Your task to perform on an android device: choose inbox layout in the gmail app Image 0: 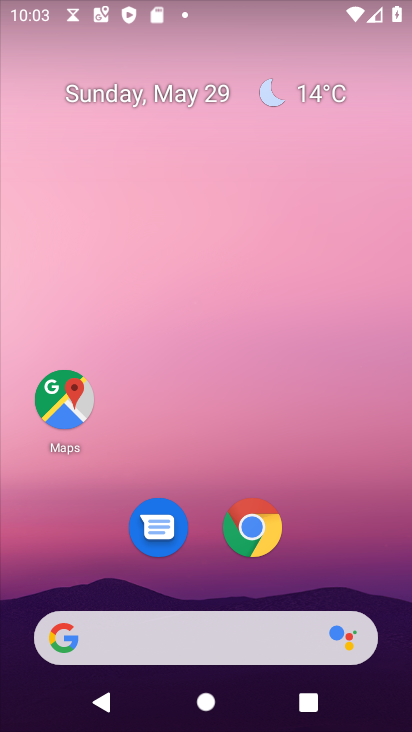
Step 0: press home button
Your task to perform on an android device: choose inbox layout in the gmail app Image 1: 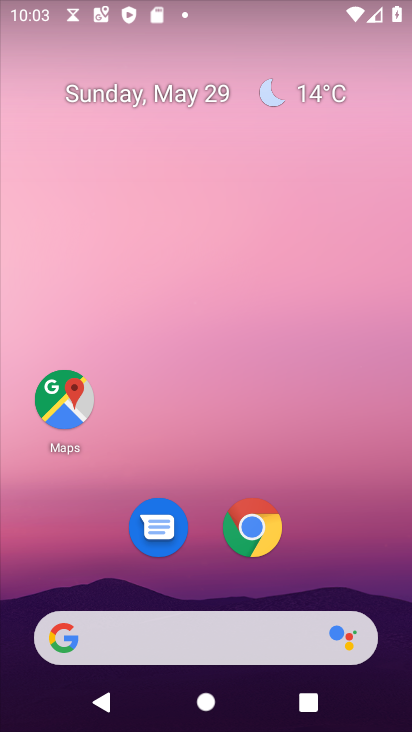
Step 1: drag from (231, 638) to (372, 250)
Your task to perform on an android device: choose inbox layout in the gmail app Image 2: 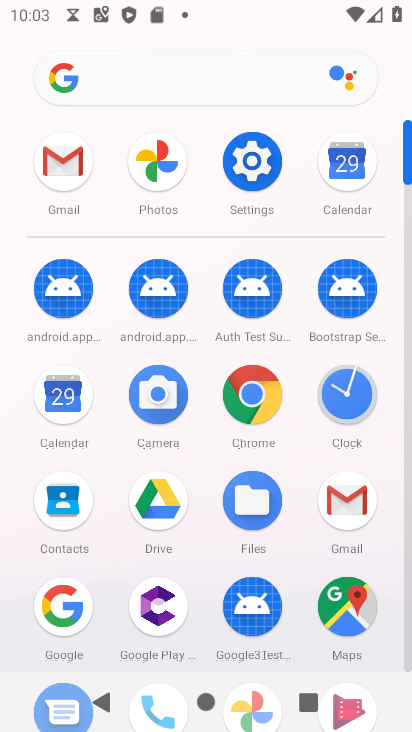
Step 2: click (363, 492)
Your task to perform on an android device: choose inbox layout in the gmail app Image 3: 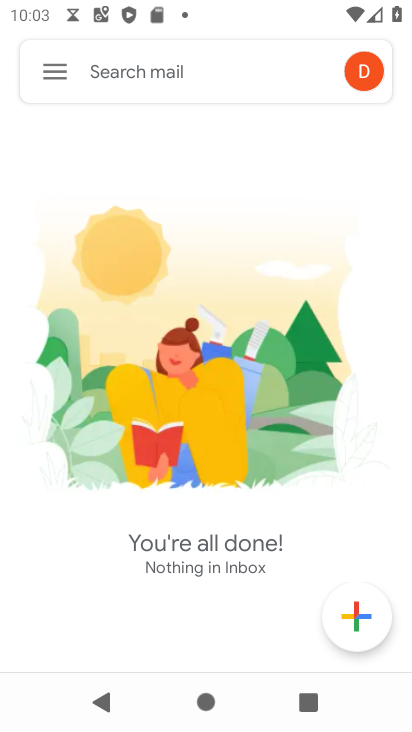
Step 3: click (53, 75)
Your task to perform on an android device: choose inbox layout in the gmail app Image 4: 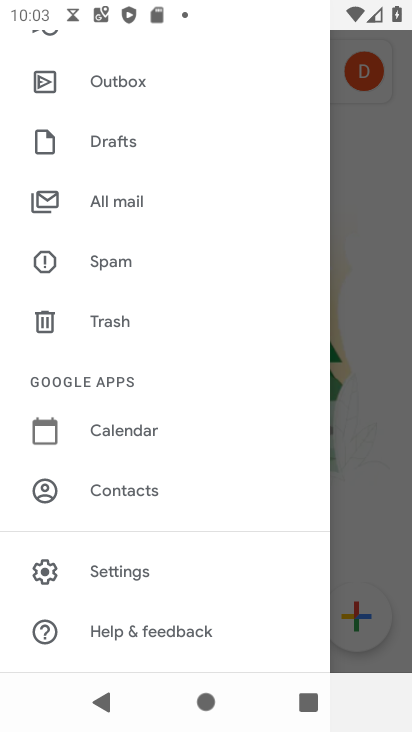
Step 4: click (137, 574)
Your task to perform on an android device: choose inbox layout in the gmail app Image 5: 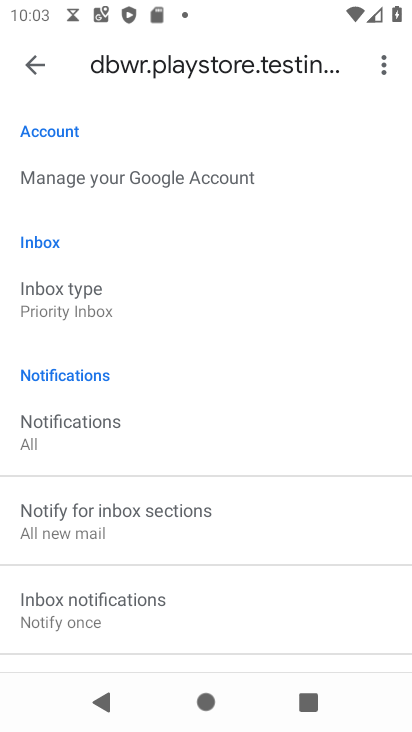
Step 5: click (84, 302)
Your task to perform on an android device: choose inbox layout in the gmail app Image 6: 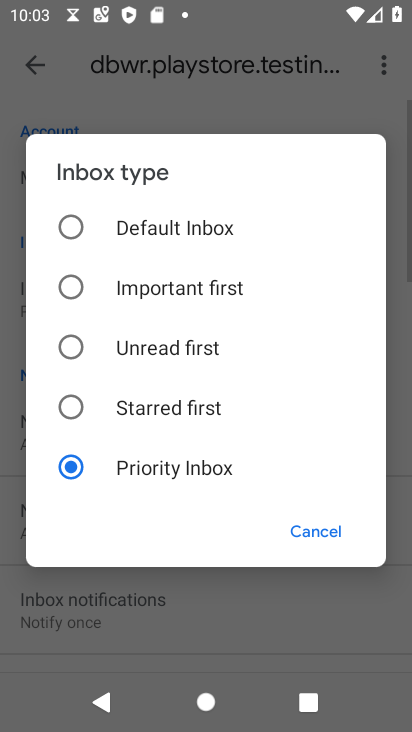
Step 6: click (66, 278)
Your task to perform on an android device: choose inbox layout in the gmail app Image 7: 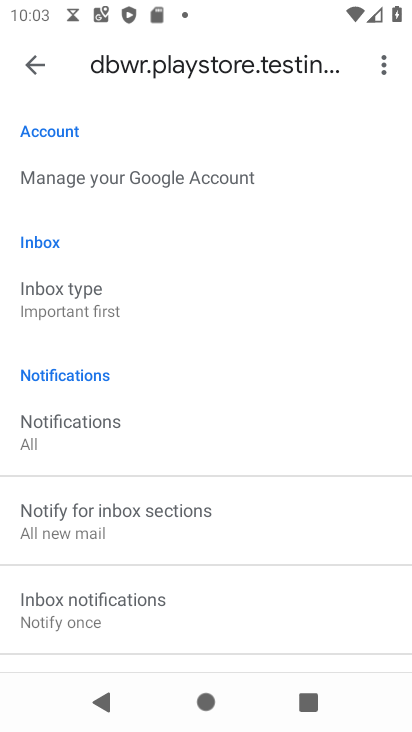
Step 7: task complete